Your task to perform on an android device: turn smart compose on in the gmail app Image 0: 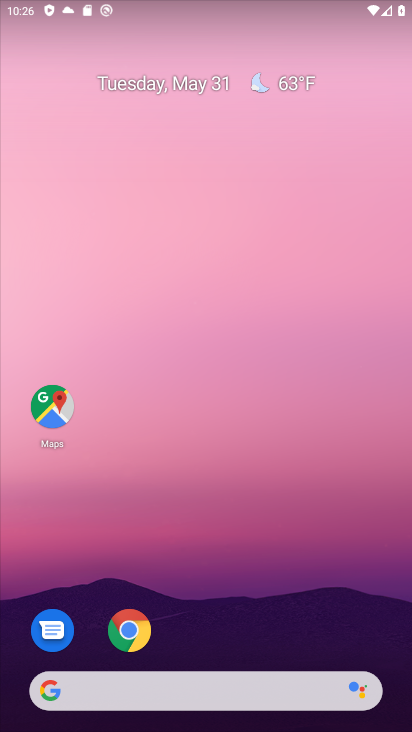
Step 0: drag from (192, 637) to (209, 150)
Your task to perform on an android device: turn smart compose on in the gmail app Image 1: 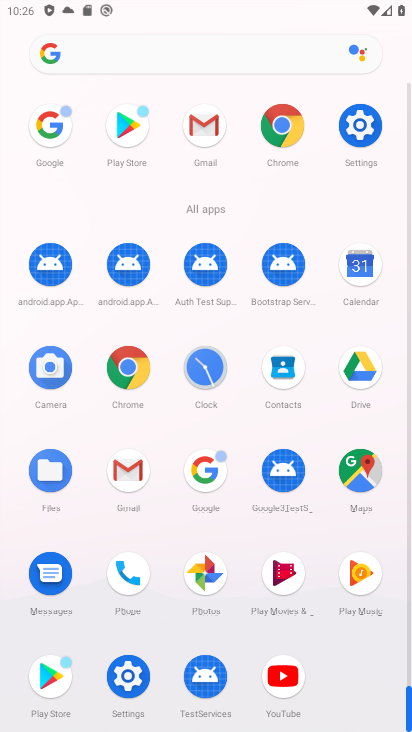
Step 1: click (125, 485)
Your task to perform on an android device: turn smart compose on in the gmail app Image 2: 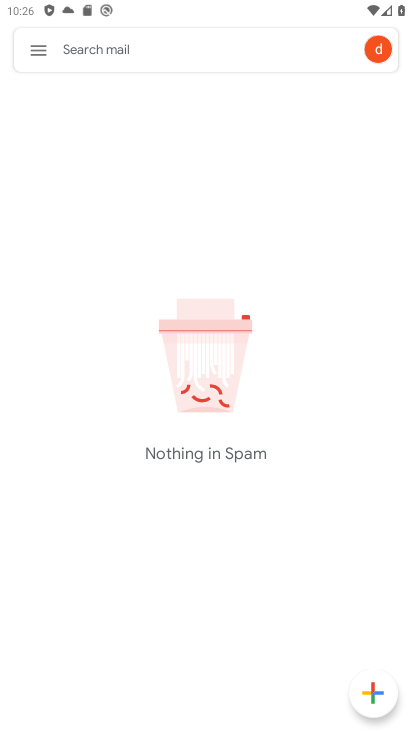
Step 2: click (37, 58)
Your task to perform on an android device: turn smart compose on in the gmail app Image 3: 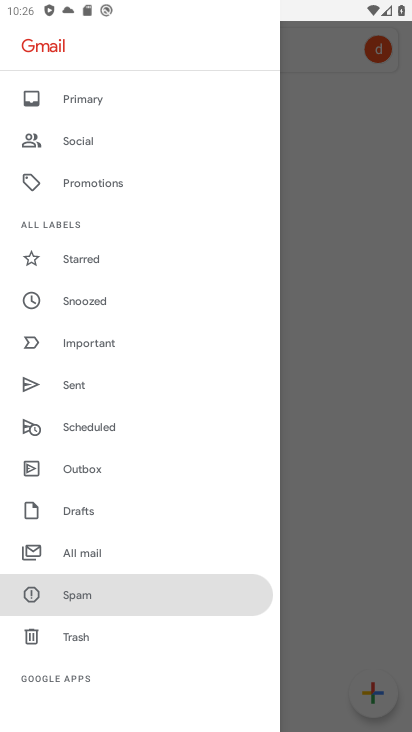
Step 3: drag from (122, 487) to (116, 276)
Your task to perform on an android device: turn smart compose on in the gmail app Image 4: 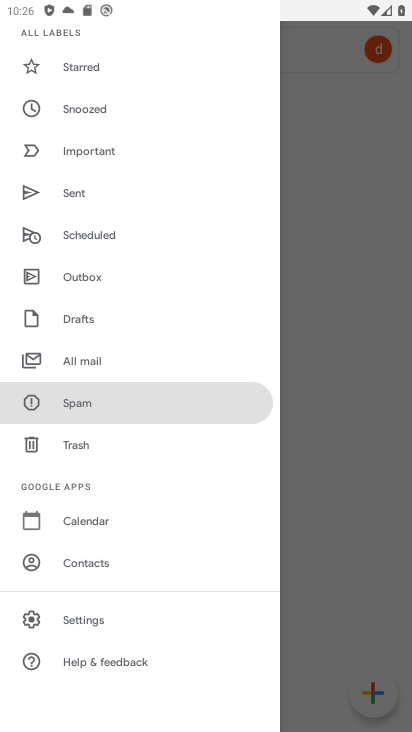
Step 4: click (86, 619)
Your task to perform on an android device: turn smart compose on in the gmail app Image 5: 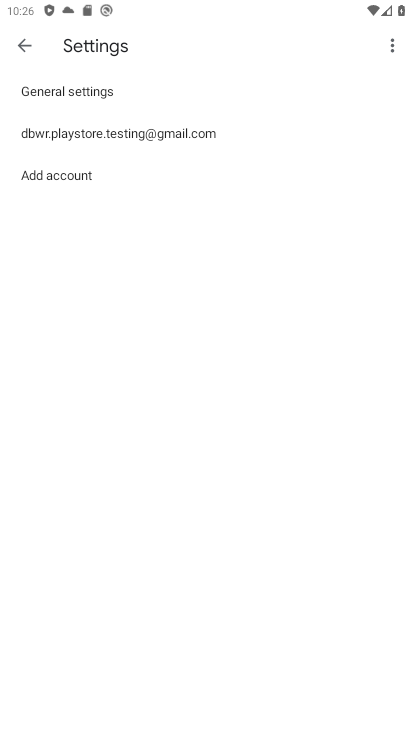
Step 5: click (126, 130)
Your task to perform on an android device: turn smart compose on in the gmail app Image 6: 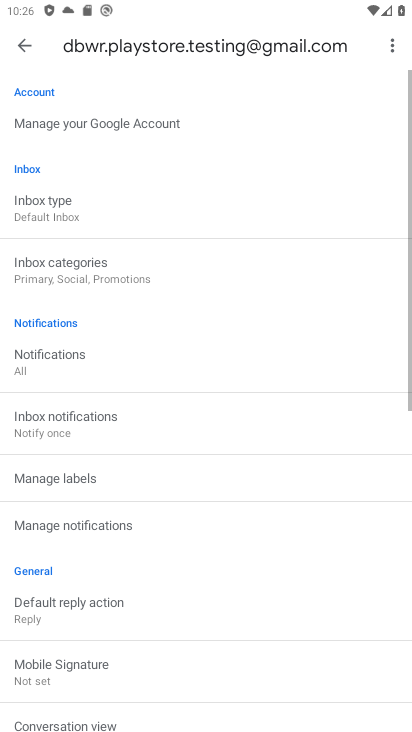
Step 6: task complete